Your task to perform on an android device: Open ESPN.com Image 0: 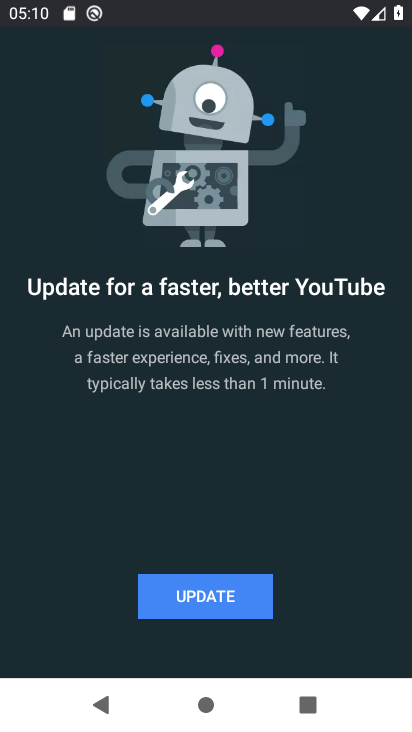
Step 0: press back button
Your task to perform on an android device: Open ESPN.com Image 1: 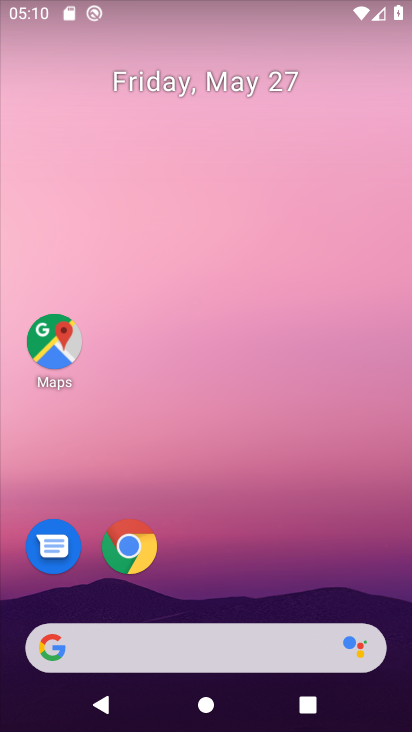
Step 1: drag from (222, 565) to (209, 56)
Your task to perform on an android device: Open ESPN.com Image 2: 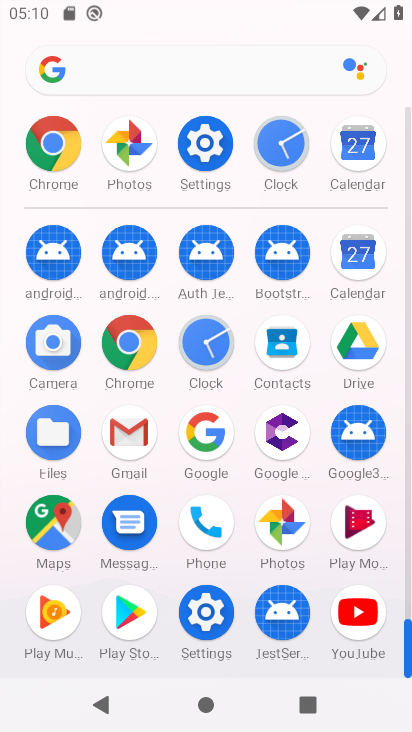
Step 2: click (127, 341)
Your task to perform on an android device: Open ESPN.com Image 3: 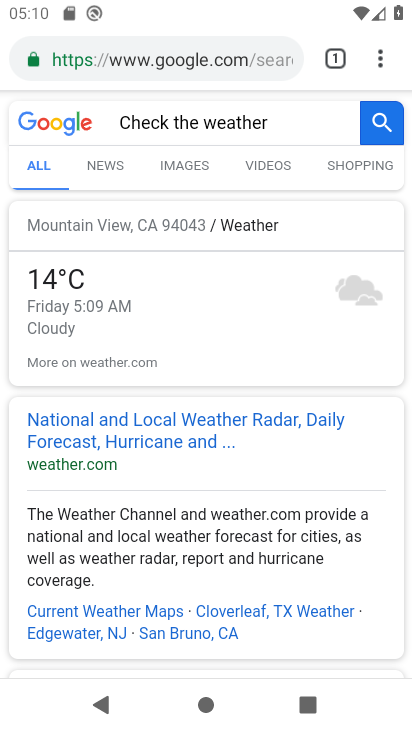
Step 3: click (184, 59)
Your task to perform on an android device: Open ESPN.com Image 4: 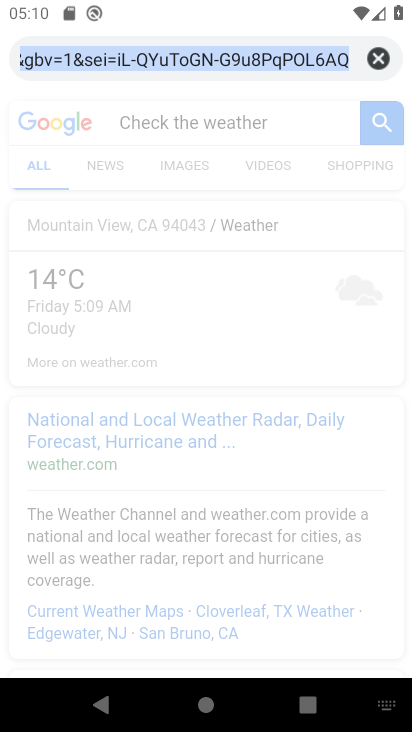
Step 4: click (383, 56)
Your task to perform on an android device: Open ESPN.com Image 5: 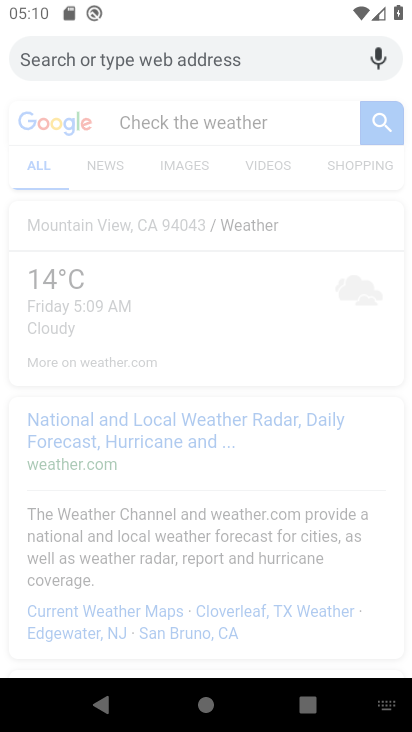
Step 5: click (153, 54)
Your task to perform on an android device: Open ESPN.com Image 6: 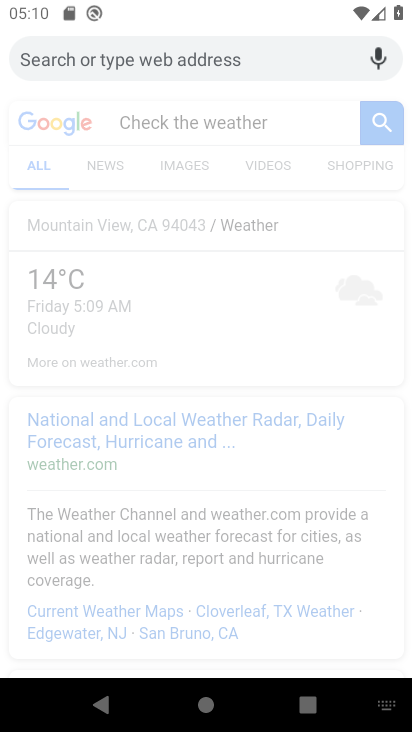
Step 6: type "ESPN.com"
Your task to perform on an android device: Open ESPN.com Image 7: 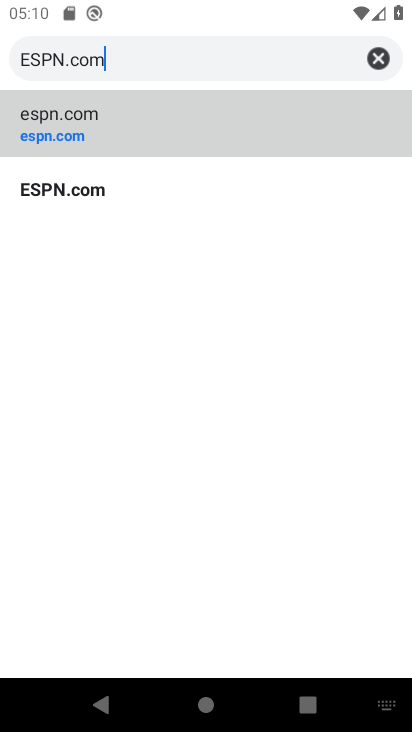
Step 7: type ""
Your task to perform on an android device: Open ESPN.com Image 8: 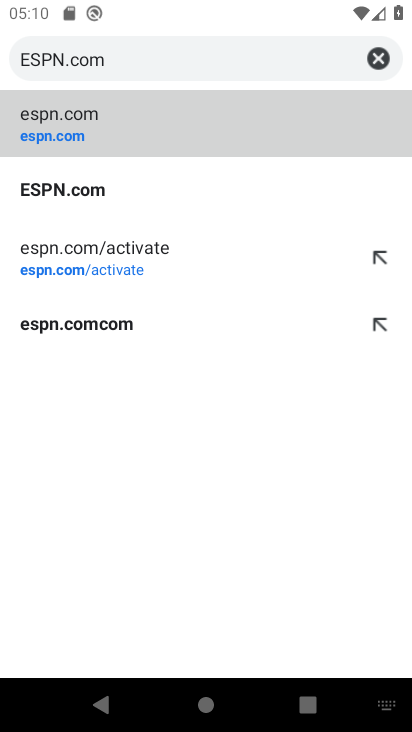
Step 8: click (80, 132)
Your task to perform on an android device: Open ESPN.com Image 9: 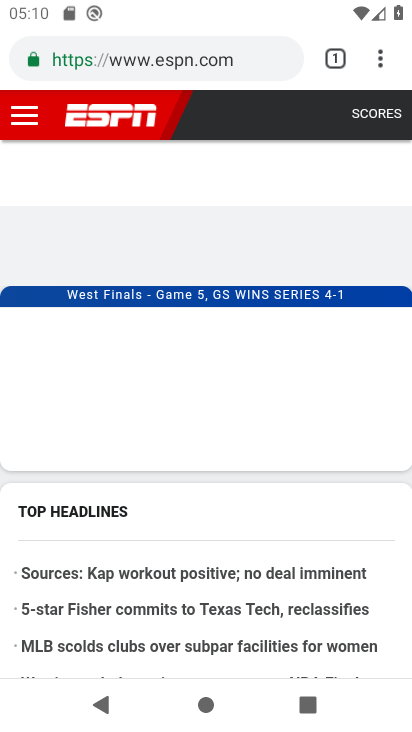
Step 9: task complete